Your task to perform on an android device: View the shopping cart on newegg.com. Image 0: 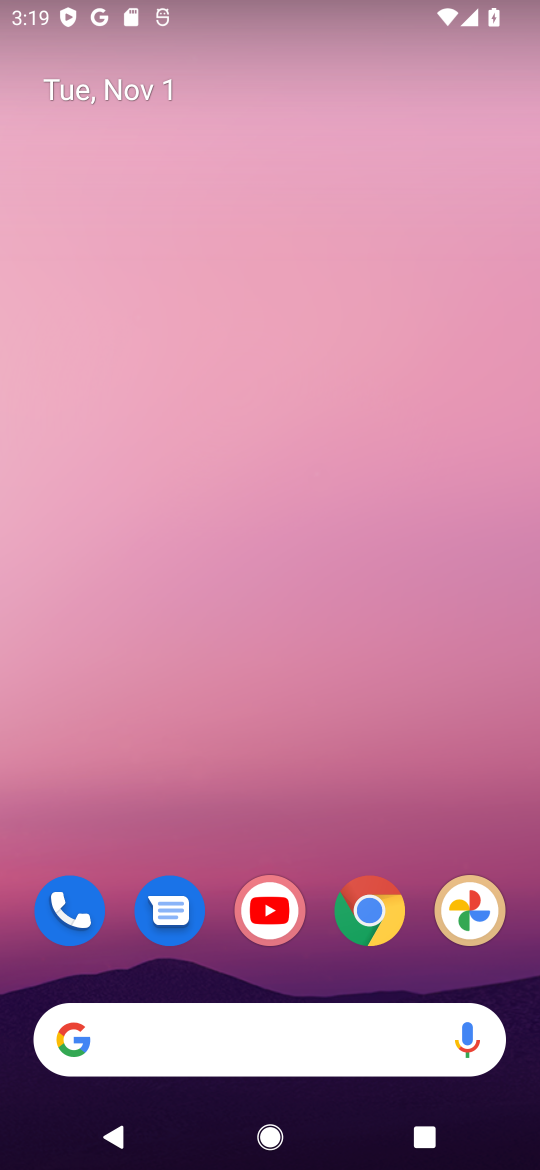
Step 0: click (228, 1044)
Your task to perform on an android device: View the shopping cart on newegg.com. Image 1: 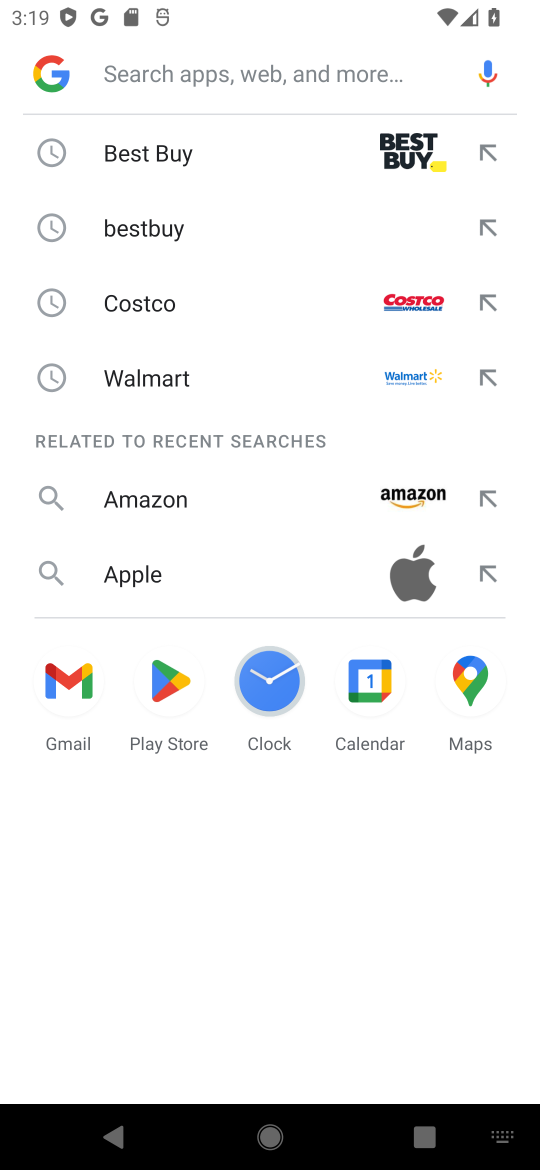
Step 1: type "newegg.com"
Your task to perform on an android device: View the shopping cart on newegg.com. Image 2: 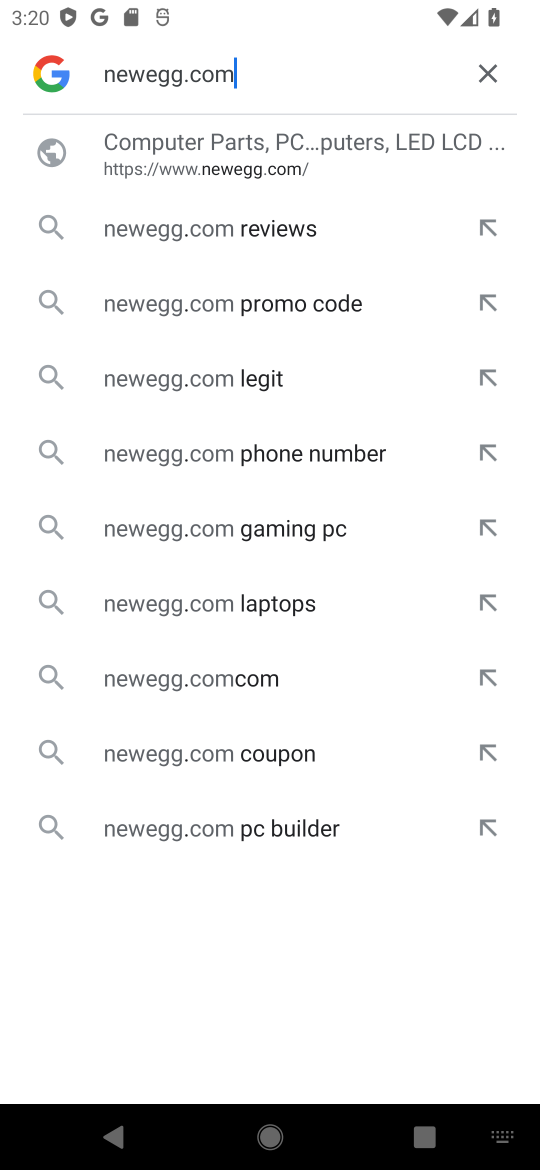
Step 2: click (240, 164)
Your task to perform on an android device: View the shopping cart on newegg.com. Image 3: 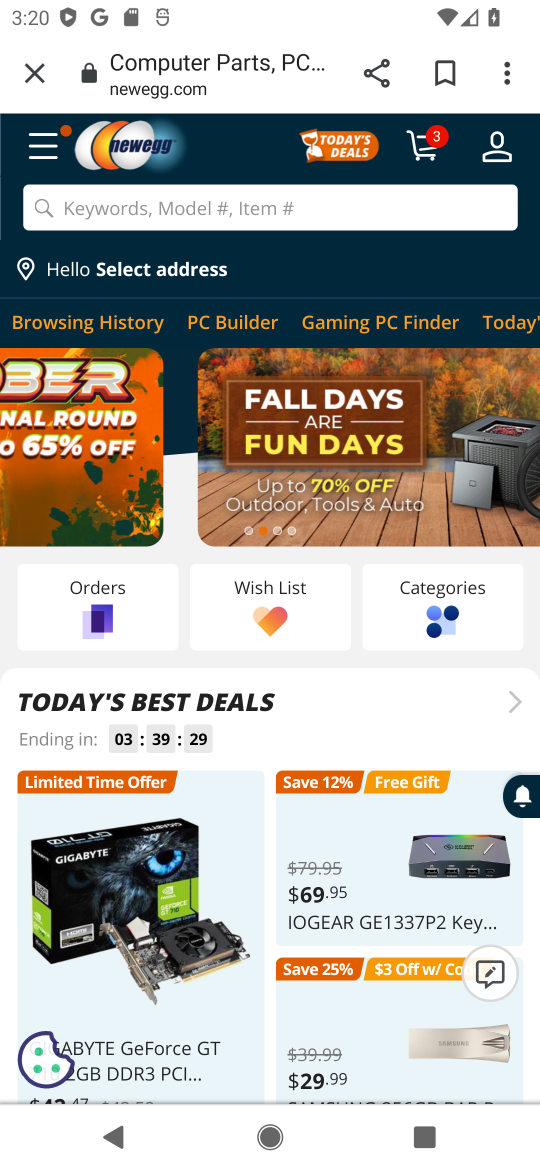
Step 3: click (429, 157)
Your task to perform on an android device: View the shopping cart on newegg.com. Image 4: 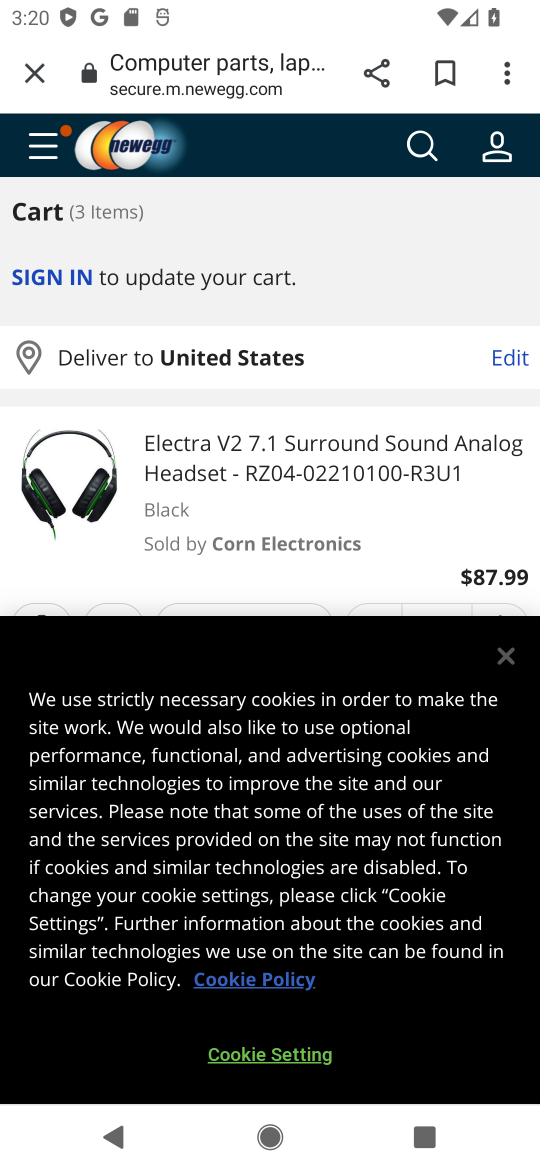
Step 4: click (376, 512)
Your task to perform on an android device: View the shopping cart on newegg.com. Image 5: 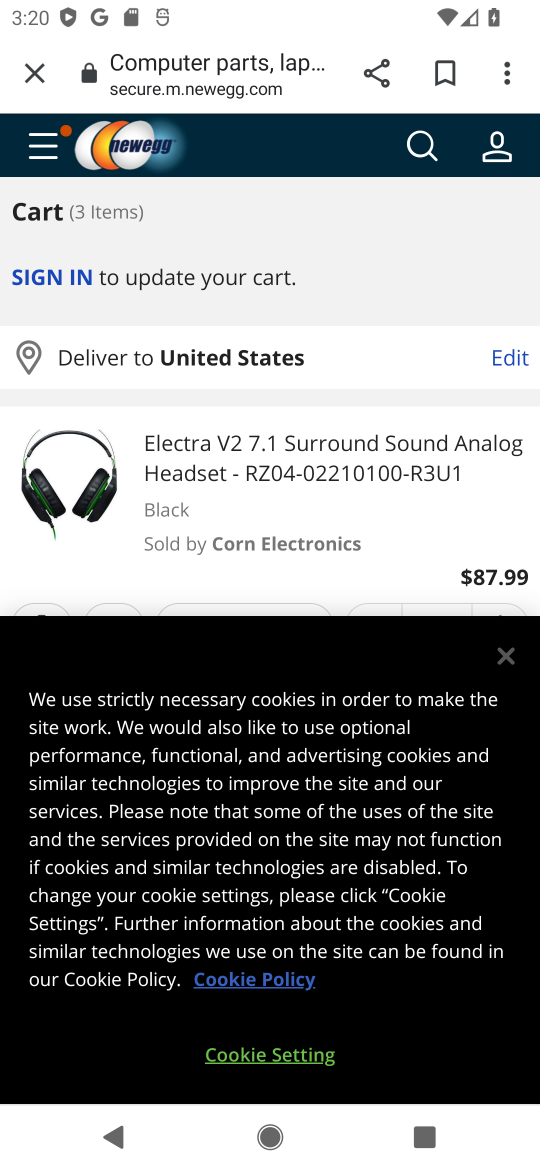
Step 5: click (505, 661)
Your task to perform on an android device: View the shopping cart on newegg.com. Image 6: 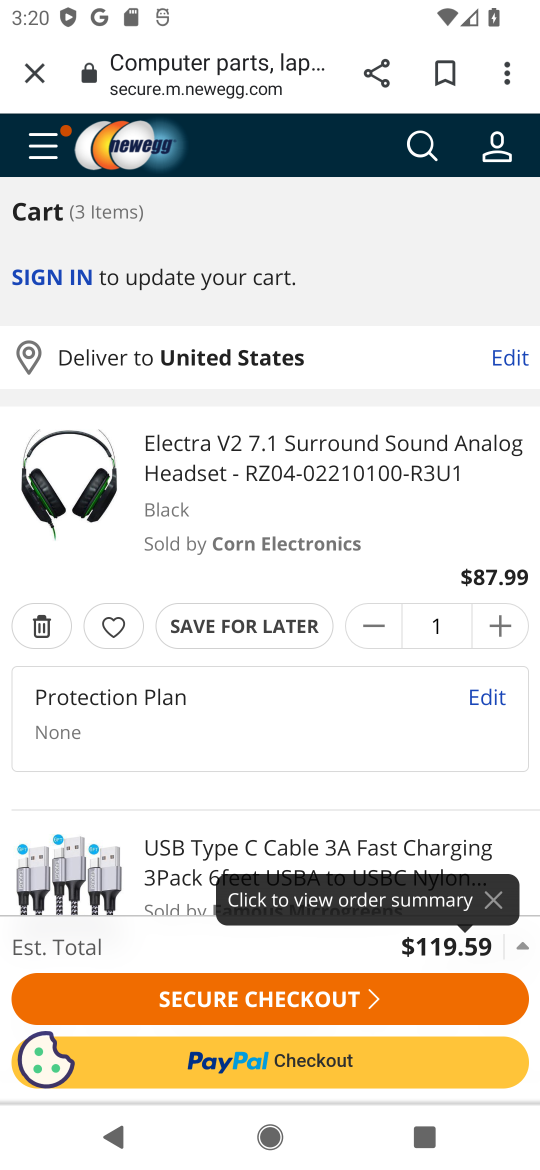
Step 6: task complete